Your task to perform on an android device: toggle notification dots Image 0: 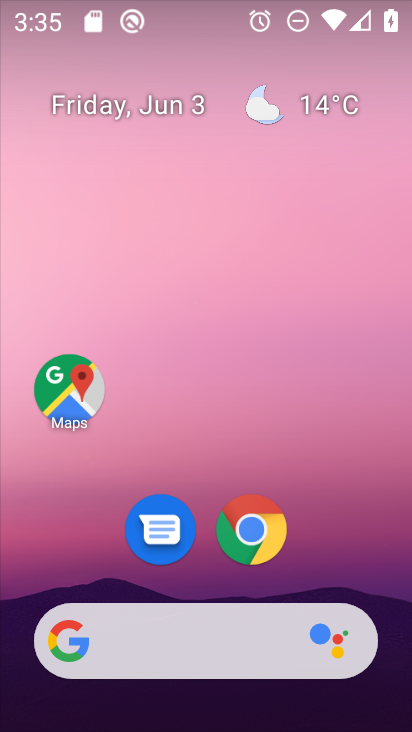
Step 0: drag from (361, 561) to (336, 230)
Your task to perform on an android device: toggle notification dots Image 1: 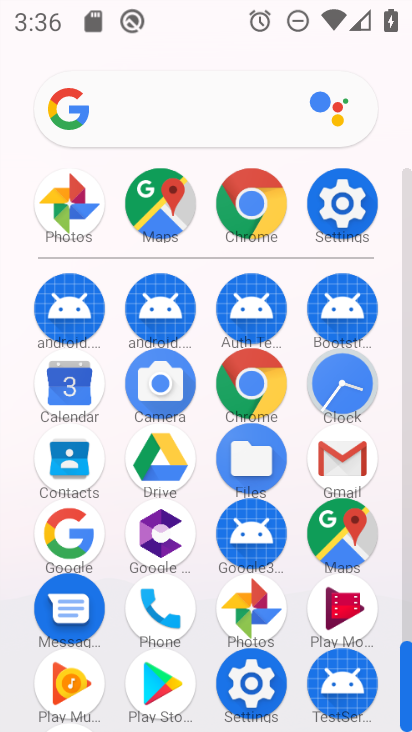
Step 1: click (348, 207)
Your task to perform on an android device: toggle notification dots Image 2: 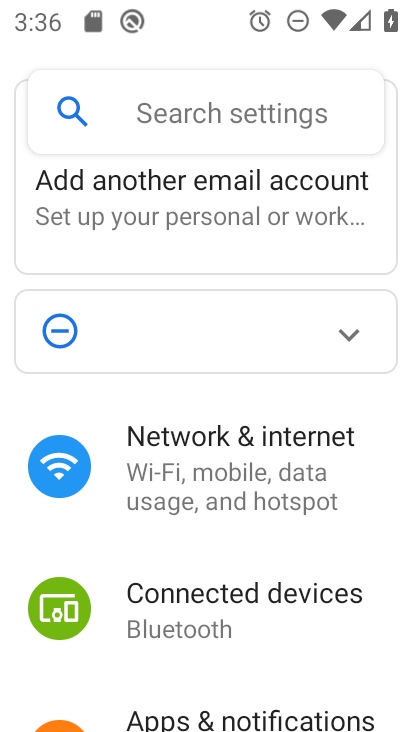
Step 2: drag from (273, 632) to (280, 445)
Your task to perform on an android device: toggle notification dots Image 3: 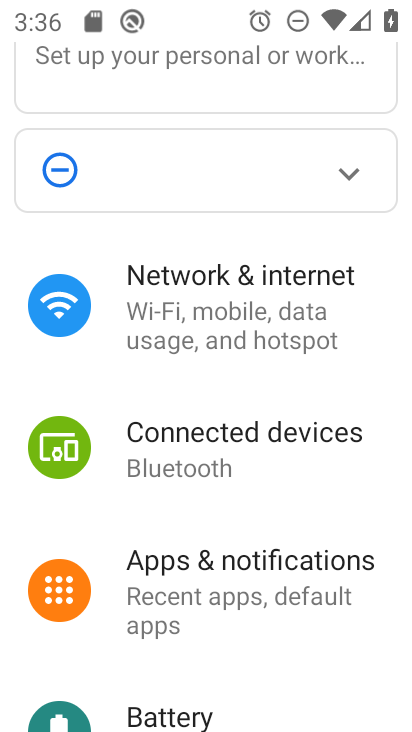
Step 3: click (276, 545)
Your task to perform on an android device: toggle notification dots Image 4: 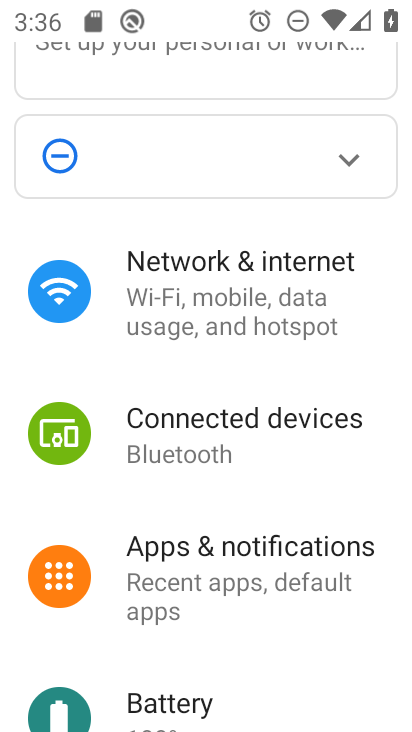
Step 4: click (247, 567)
Your task to perform on an android device: toggle notification dots Image 5: 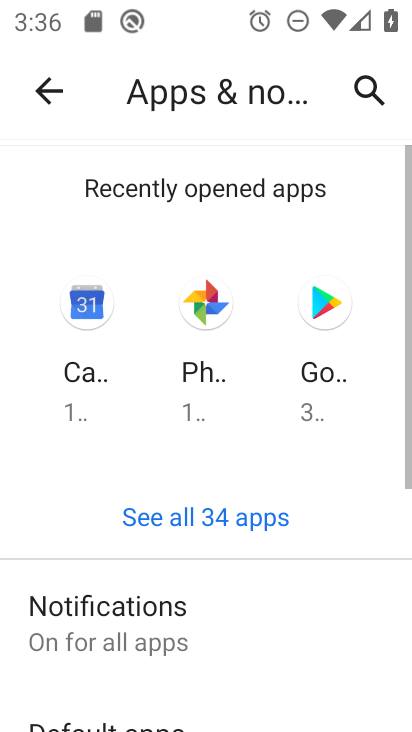
Step 5: drag from (245, 604) to (247, 422)
Your task to perform on an android device: toggle notification dots Image 6: 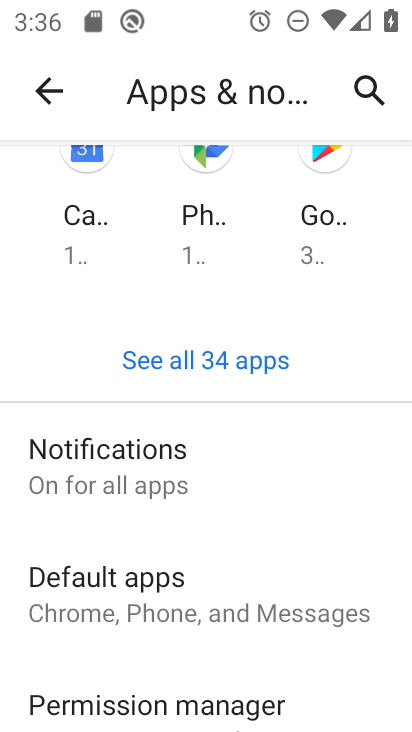
Step 6: click (157, 455)
Your task to perform on an android device: toggle notification dots Image 7: 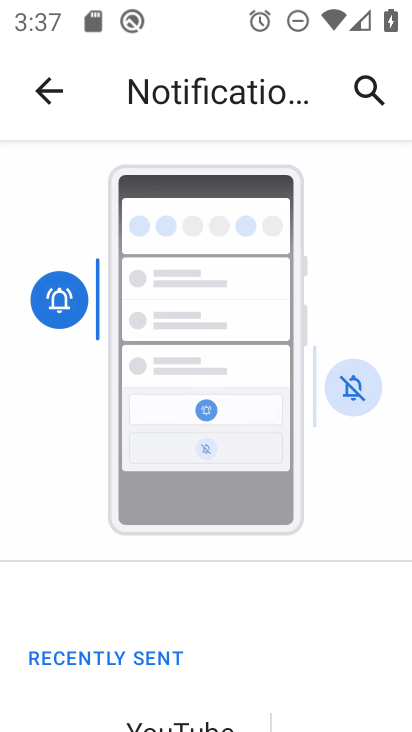
Step 7: drag from (330, 589) to (329, 356)
Your task to perform on an android device: toggle notification dots Image 8: 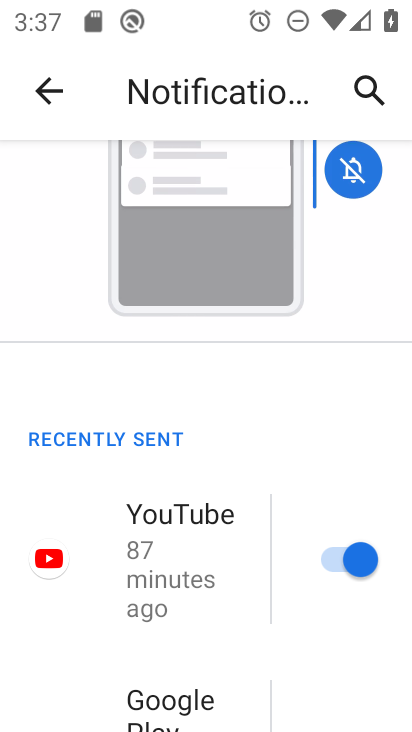
Step 8: drag from (291, 545) to (298, 380)
Your task to perform on an android device: toggle notification dots Image 9: 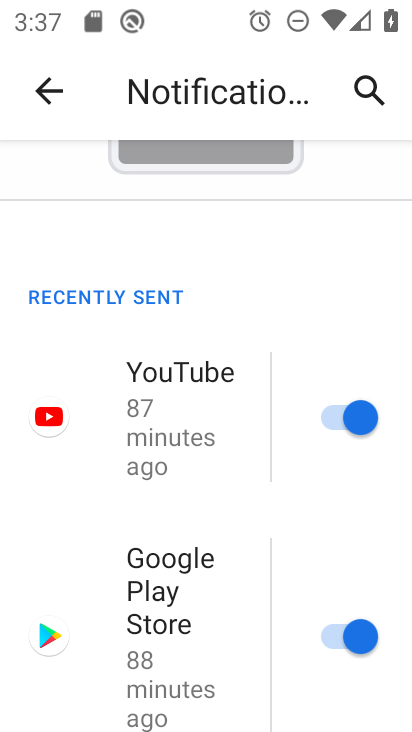
Step 9: drag from (273, 536) to (272, 371)
Your task to perform on an android device: toggle notification dots Image 10: 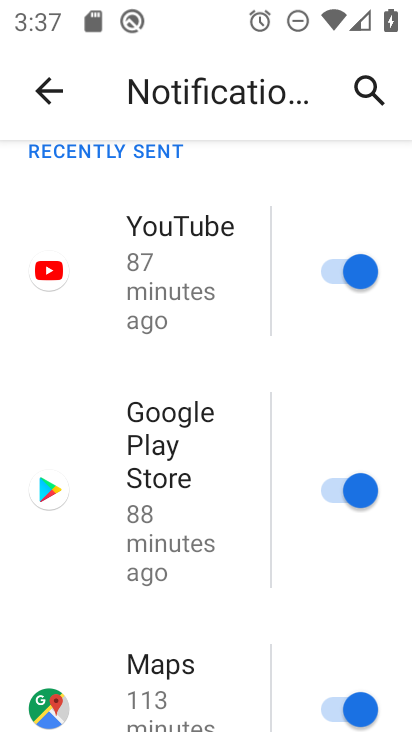
Step 10: drag from (246, 554) to (256, 312)
Your task to perform on an android device: toggle notification dots Image 11: 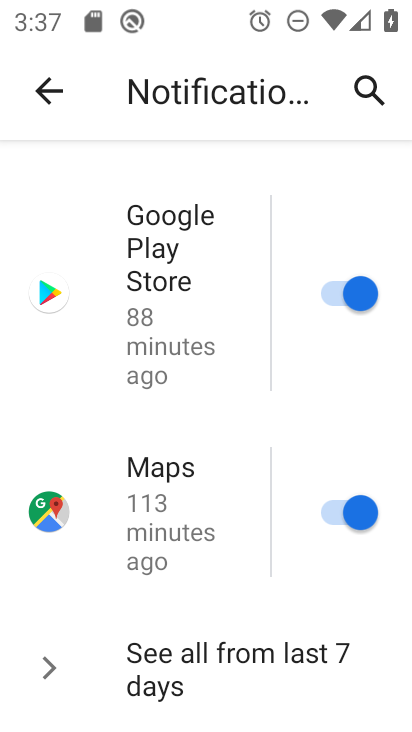
Step 11: drag from (220, 542) to (229, 223)
Your task to perform on an android device: toggle notification dots Image 12: 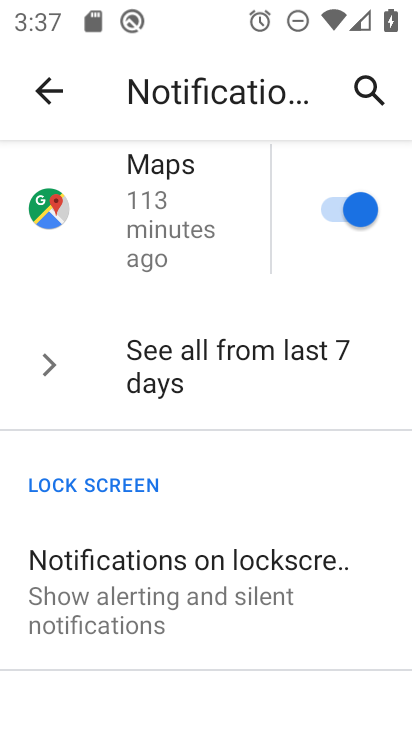
Step 12: drag from (247, 646) to (253, 337)
Your task to perform on an android device: toggle notification dots Image 13: 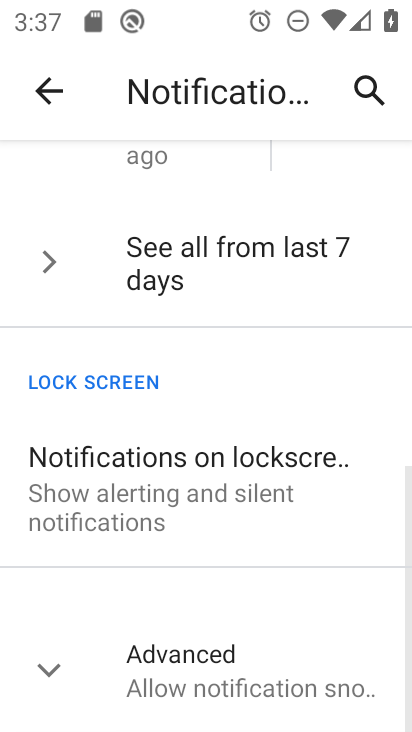
Step 13: click (264, 675)
Your task to perform on an android device: toggle notification dots Image 14: 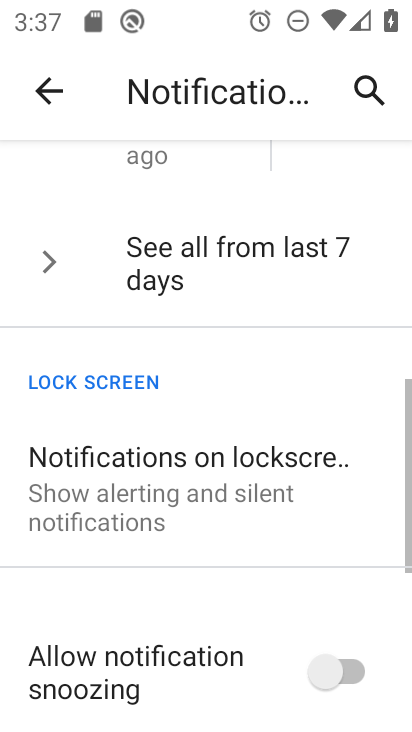
Step 14: drag from (266, 651) to (266, 374)
Your task to perform on an android device: toggle notification dots Image 15: 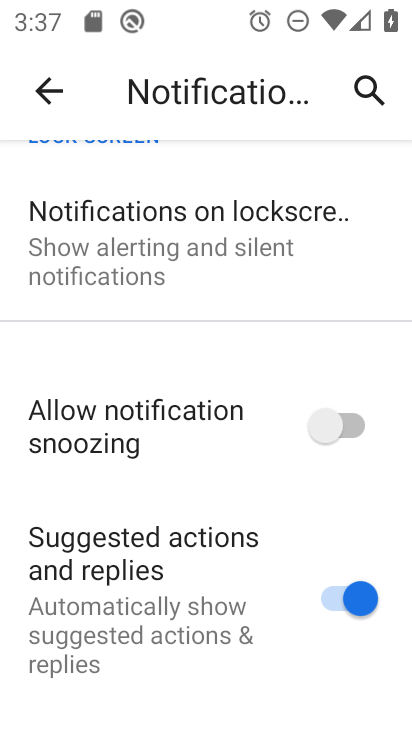
Step 15: drag from (292, 653) to (288, 397)
Your task to perform on an android device: toggle notification dots Image 16: 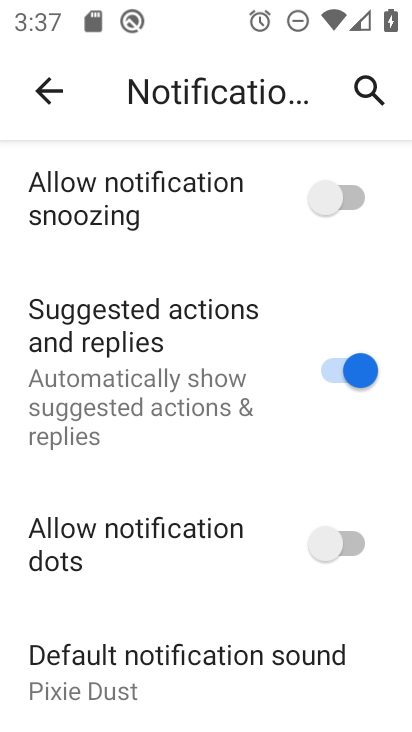
Step 16: click (345, 526)
Your task to perform on an android device: toggle notification dots Image 17: 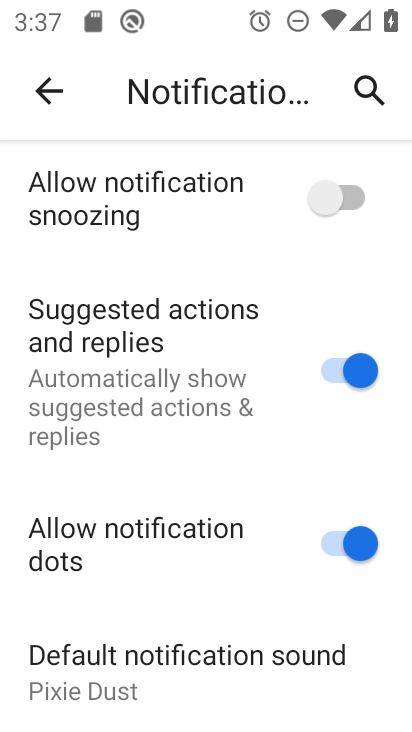
Step 17: task complete